Your task to perform on an android device: set the stopwatch Image 0: 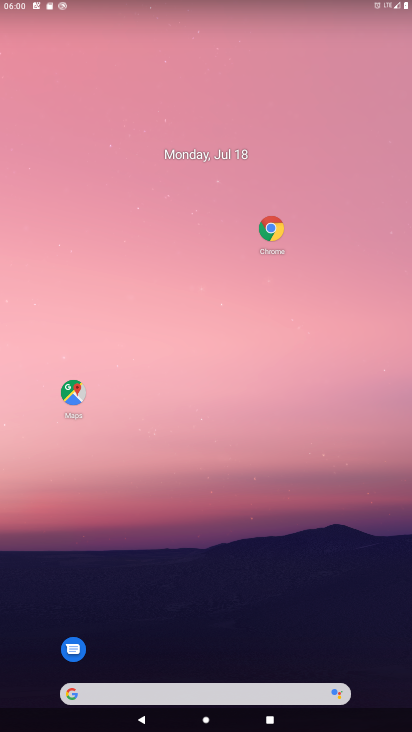
Step 0: drag from (180, 654) to (186, 123)
Your task to perform on an android device: set the stopwatch Image 1: 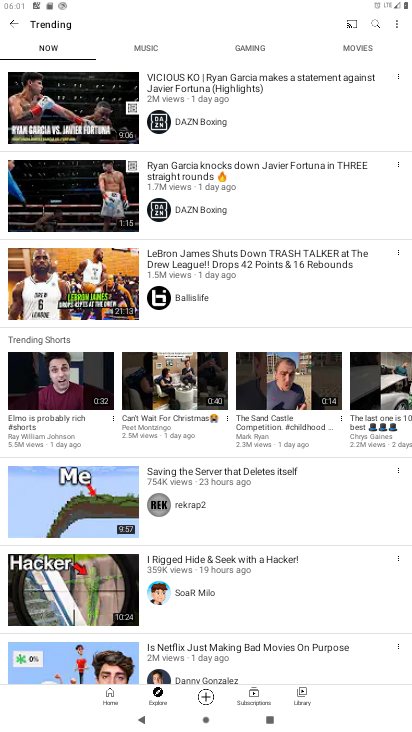
Step 1: press home button
Your task to perform on an android device: set the stopwatch Image 2: 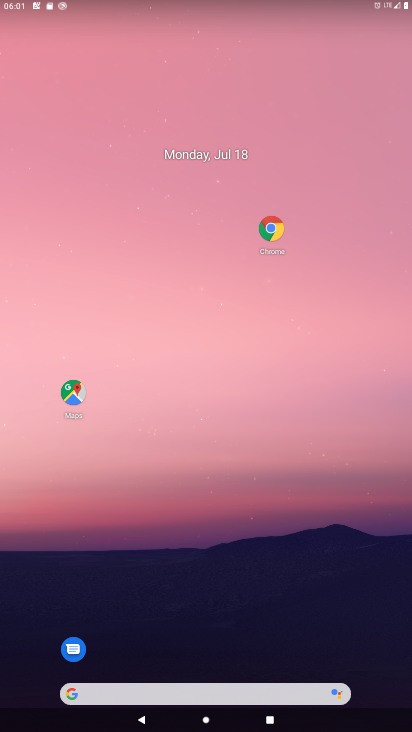
Step 2: drag from (183, 658) to (167, 338)
Your task to perform on an android device: set the stopwatch Image 3: 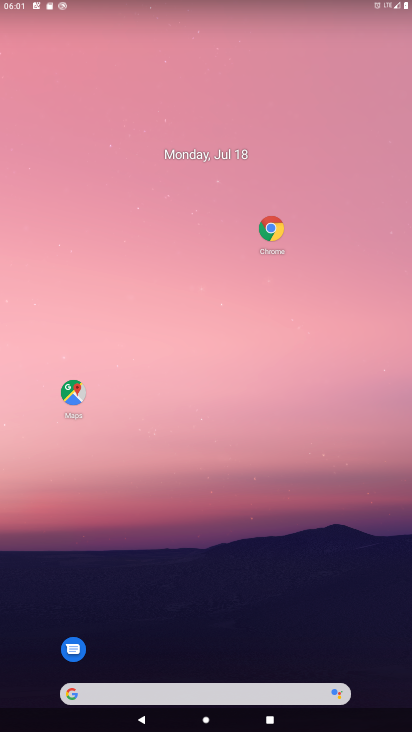
Step 3: drag from (154, 630) to (199, 77)
Your task to perform on an android device: set the stopwatch Image 4: 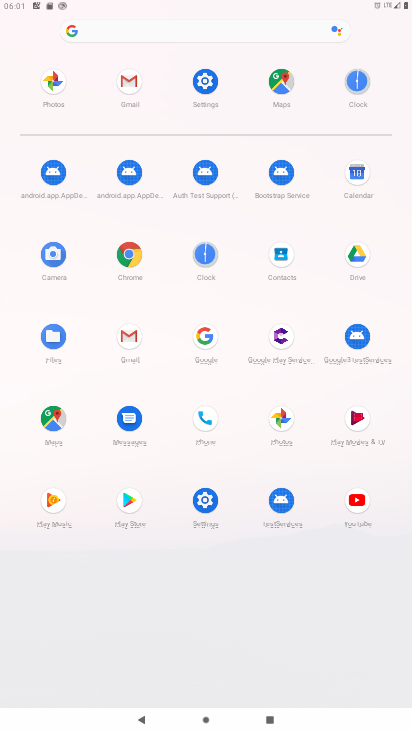
Step 4: click (360, 75)
Your task to perform on an android device: set the stopwatch Image 5: 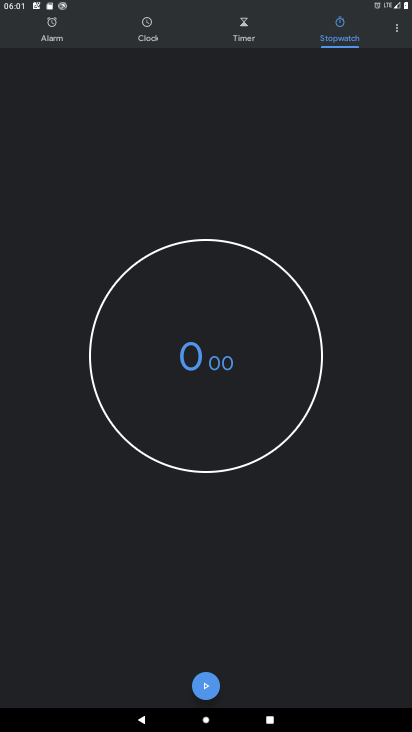
Step 5: click (195, 687)
Your task to perform on an android device: set the stopwatch Image 6: 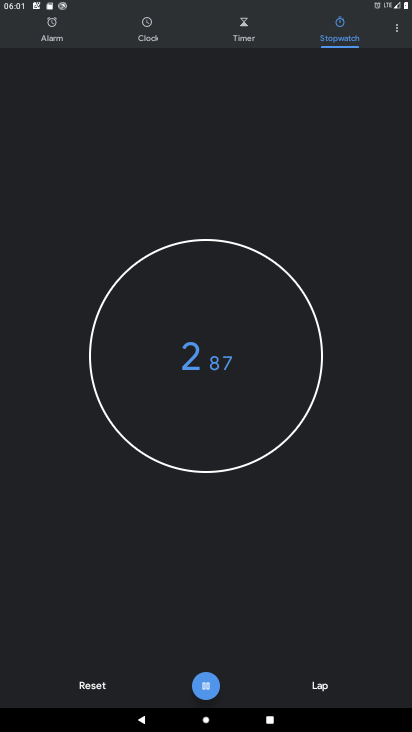
Step 6: task complete